Your task to perform on an android device: turn vacation reply on in the gmail app Image 0: 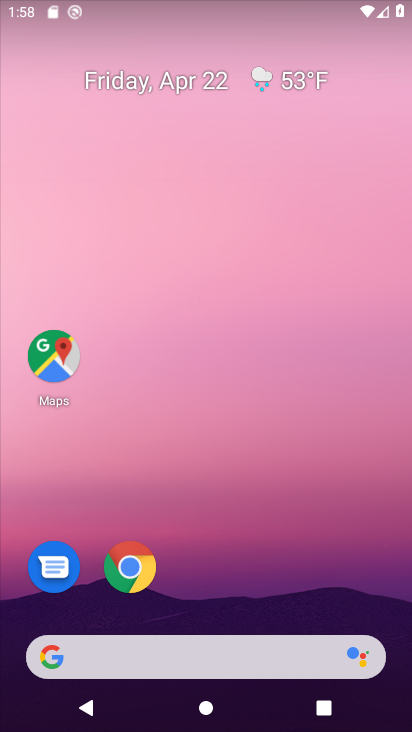
Step 0: drag from (273, 584) to (280, 118)
Your task to perform on an android device: turn vacation reply on in the gmail app Image 1: 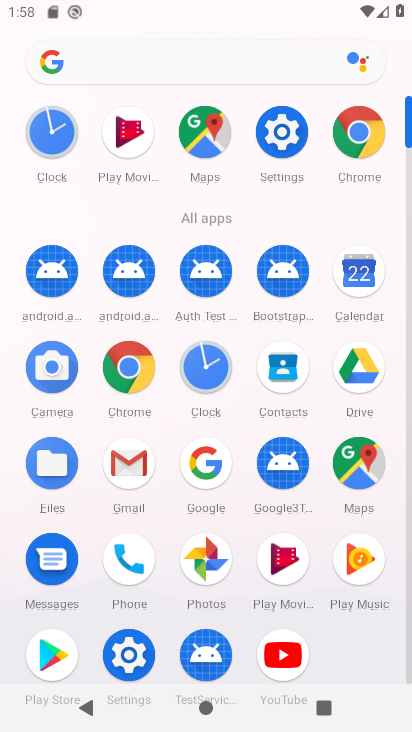
Step 1: click (133, 450)
Your task to perform on an android device: turn vacation reply on in the gmail app Image 2: 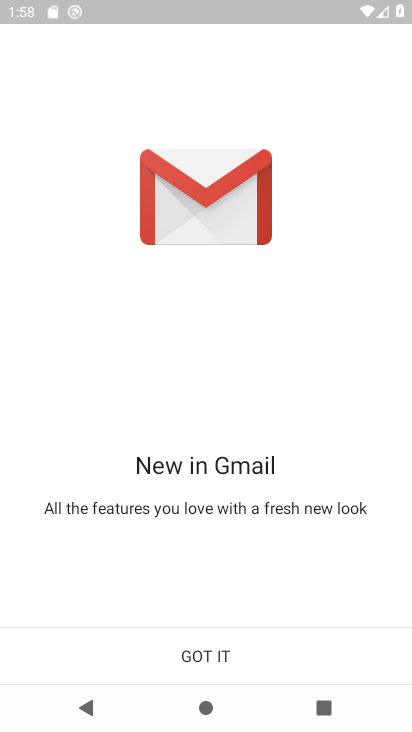
Step 2: click (235, 645)
Your task to perform on an android device: turn vacation reply on in the gmail app Image 3: 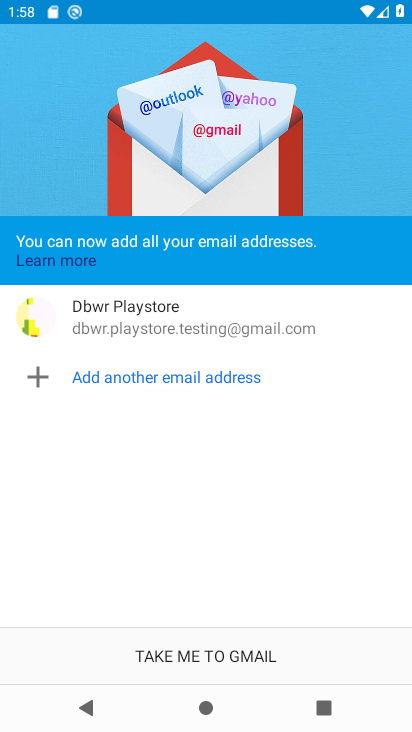
Step 3: click (235, 644)
Your task to perform on an android device: turn vacation reply on in the gmail app Image 4: 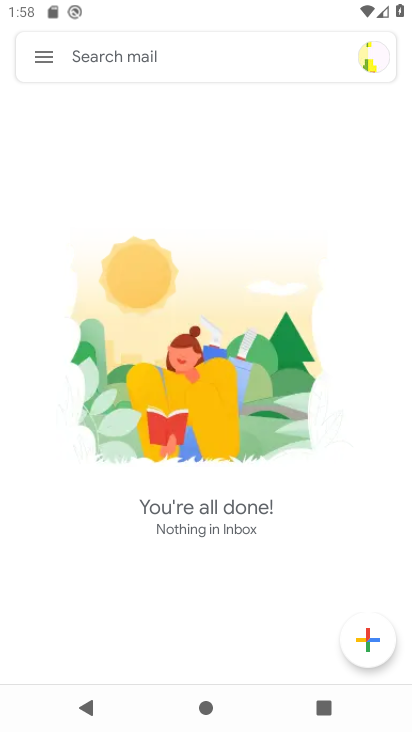
Step 4: click (47, 57)
Your task to perform on an android device: turn vacation reply on in the gmail app Image 5: 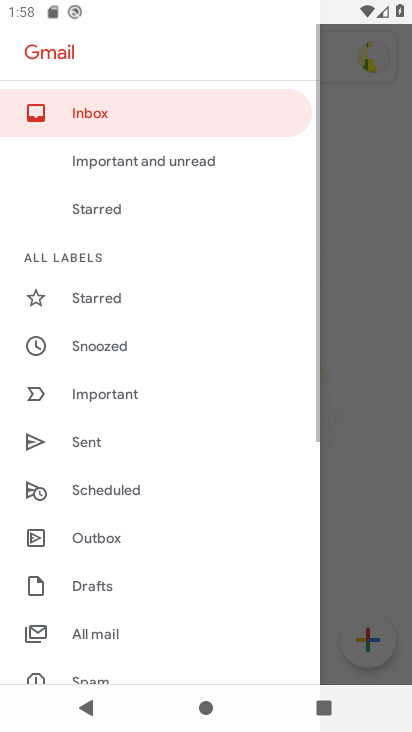
Step 5: drag from (180, 636) to (215, 256)
Your task to perform on an android device: turn vacation reply on in the gmail app Image 6: 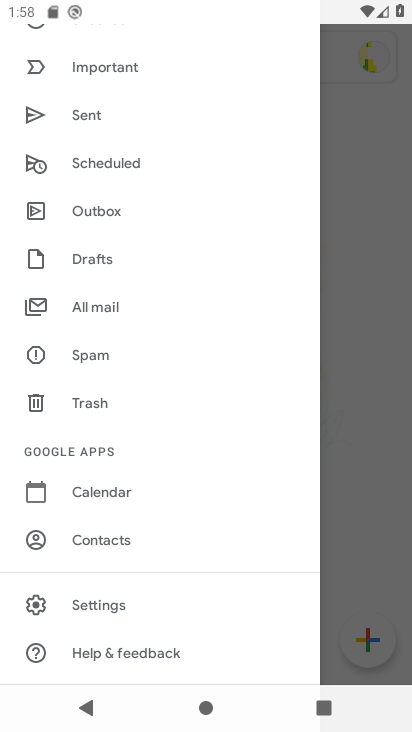
Step 6: click (116, 598)
Your task to perform on an android device: turn vacation reply on in the gmail app Image 7: 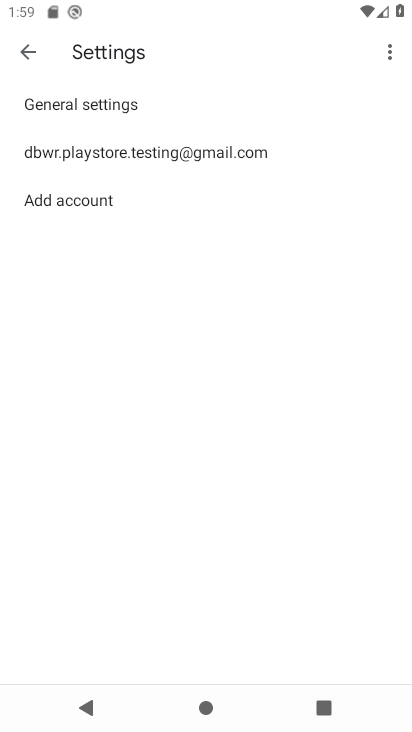
Step 7: click (240, 148)
Your task to perform on an android device: turn vacation reply on in the gmail app Image 8: 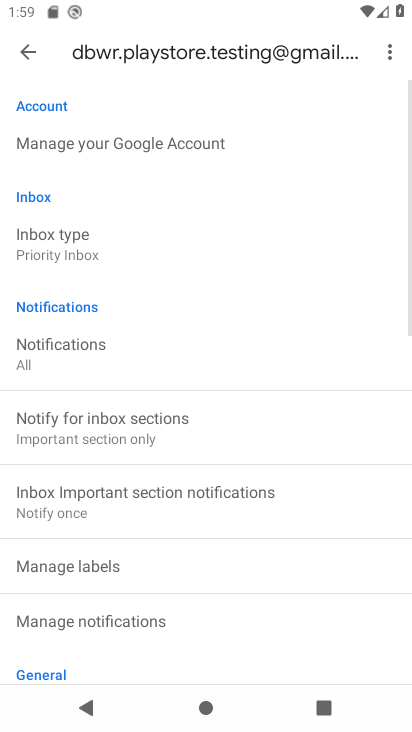
Step 8: drag from (230, 606) to (275, 155)
Your task to perform on an android device: turn vacation reply on in the gmail app Image 9: 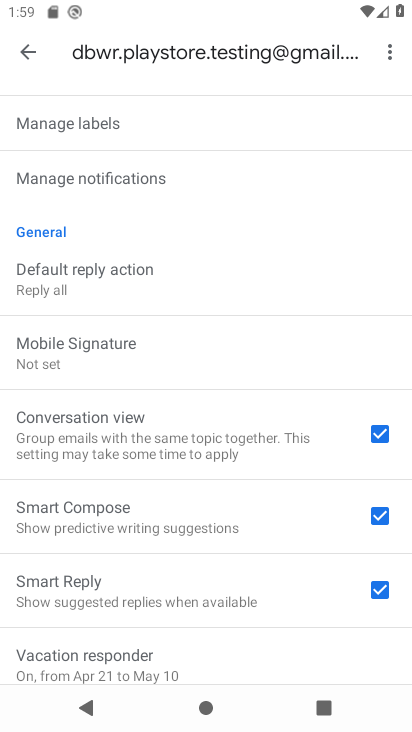
Step 9: drag from (225, 614) to (253, 248)
Your task to perform on an android device: turn vacation reply on in the gmail app Image 10: 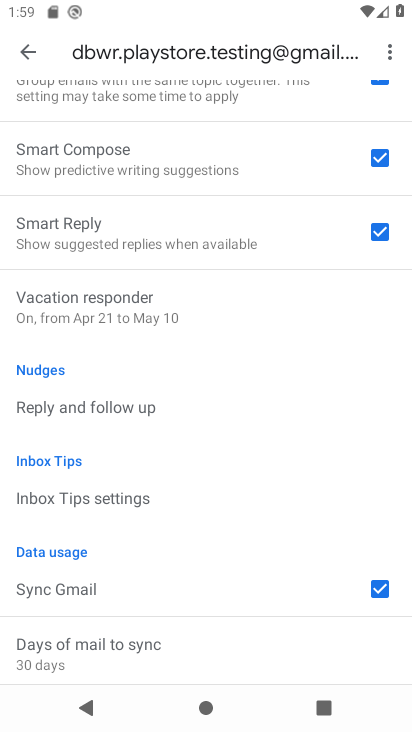
Step 10: click (247, 303)
Your task to perform on an android device: turn vacation reply on in the gmail app Image 11: 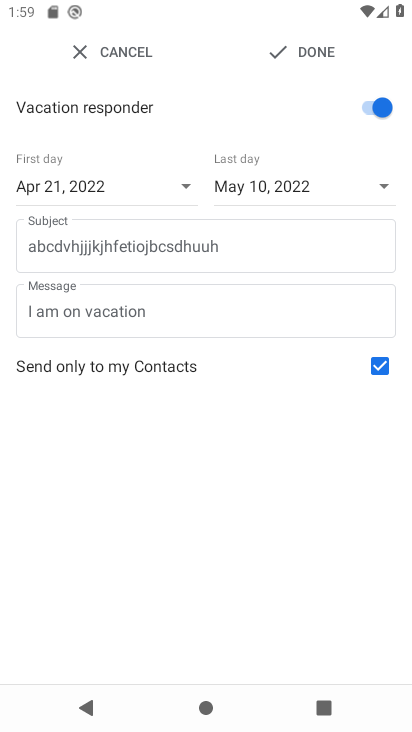
Step 11: task complete